Your task to perform on an android device: empty trash in the gmail app Image 0: 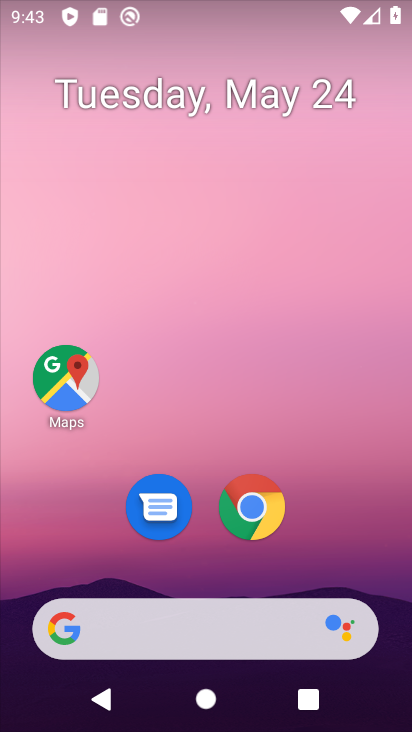
Step 0: drag from (295, 522) to (217, 30)
Your task to perform on an android device: empty trash in the gmail app Image 1: 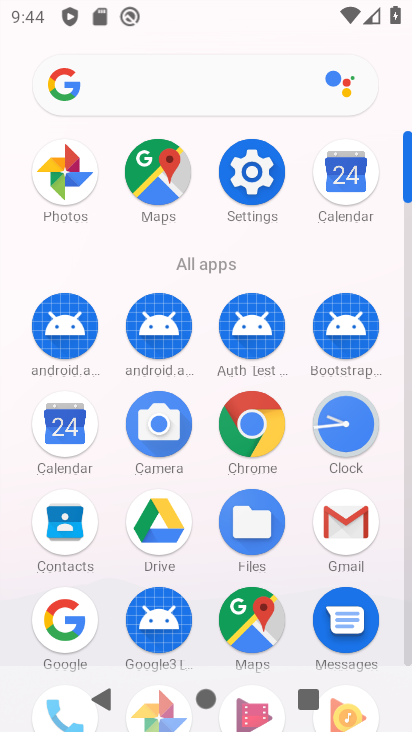
Step 1: click (334, 530)
Your task to perform on an android device: empty trash in the gmail app Image 2: 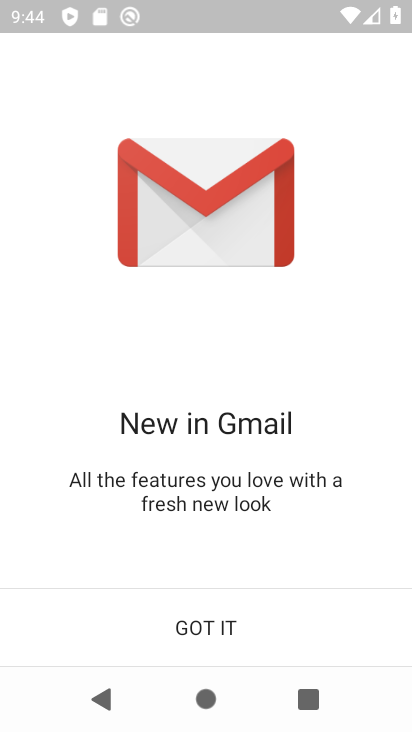
Step 2: click (260, 606)
Your task to perform on an android device: empty trash in the gmail app Image 3: 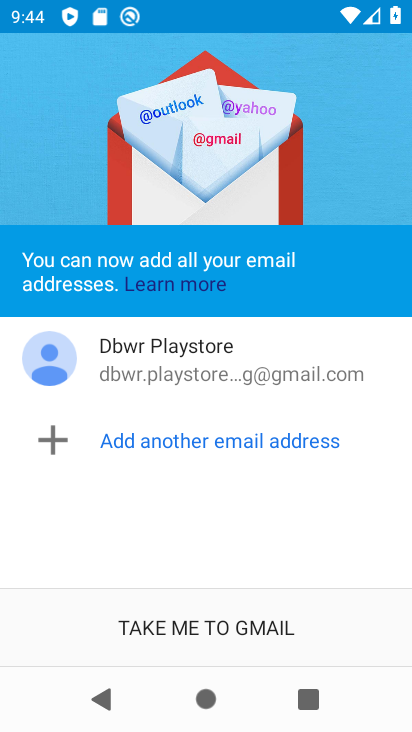
Step 3: click (213, 628)
Your task to perform on an android device: empty trash in the gmail app Image 4: 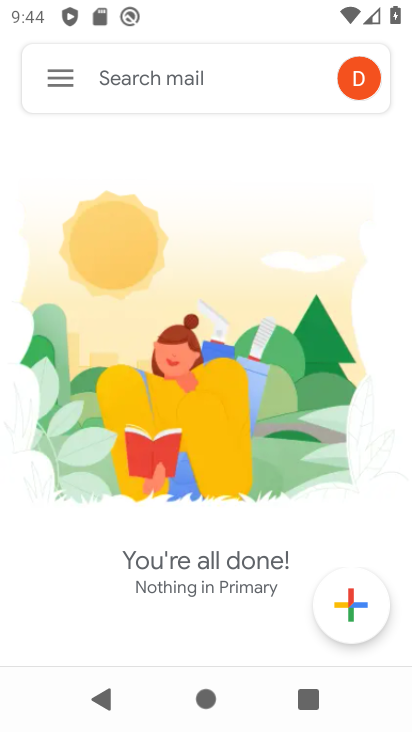
Step 4: click (59, 78)
Your task to perform on an android device: empty trash in the gmail app Image 5: 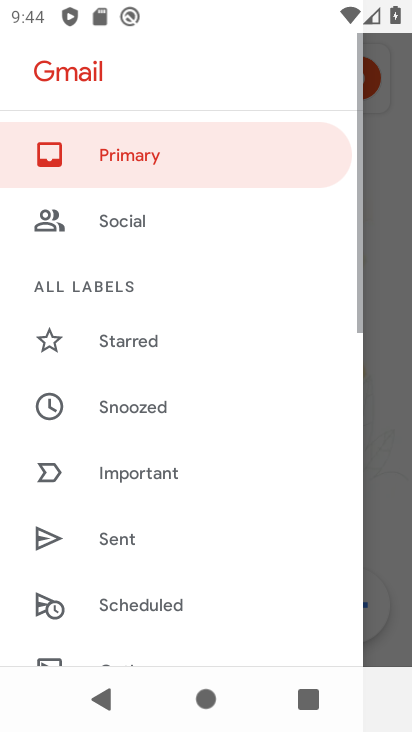
Step 5: drag from (162, 516) to (156, 233)
Your task to perform on an android device: empty trash in the gmail app Image 6: 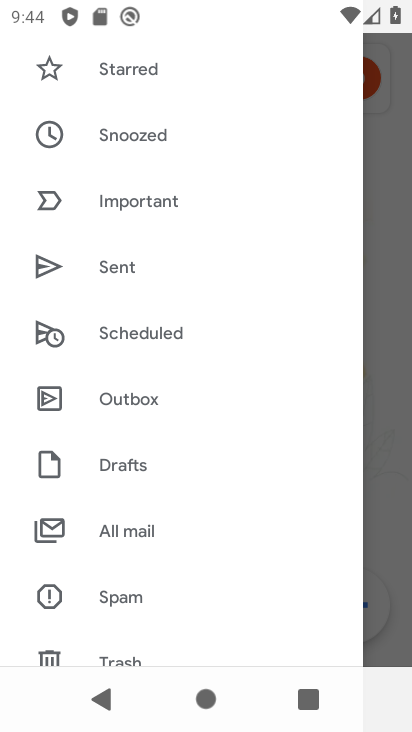
Step 6: click (135, 652)
Your task to perform on an android device: empty trash in the gmail app Image 7: 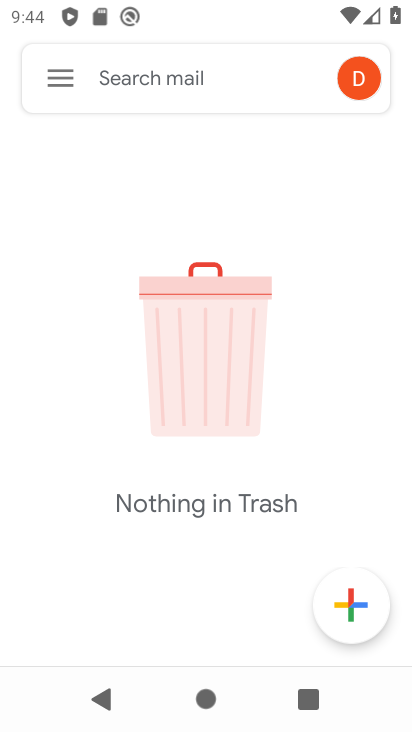
Step 7: task complete